Your task to perform on an android device: open the mobile data screen to see how much data has been used Image 0: 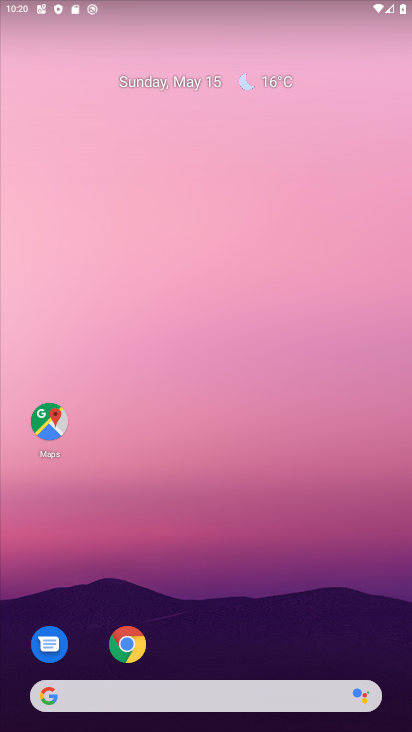
Step 0: drag from (374, 6) to (308, 722)
Your task to perform on an android device: open the mobile data screen to see how much data has been used Image 1: 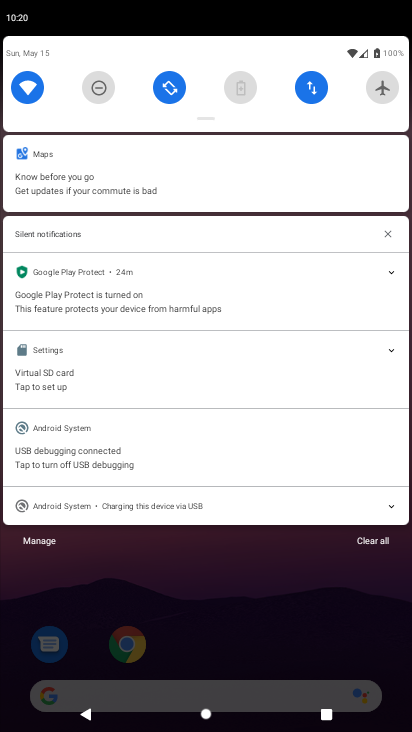
Step 1: click (316, 105)
Your task to perform on an android device: open the mobile data screen to see how much data has been used Image 2: 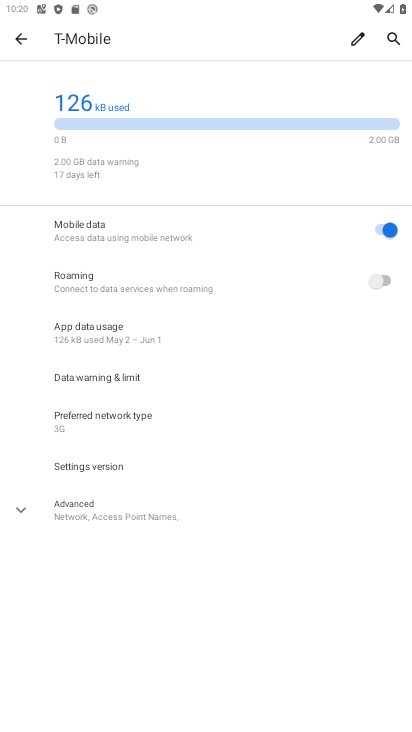
Step 2: task complete